Your task to perform on an android device: Go to ESPN.com Image 0: 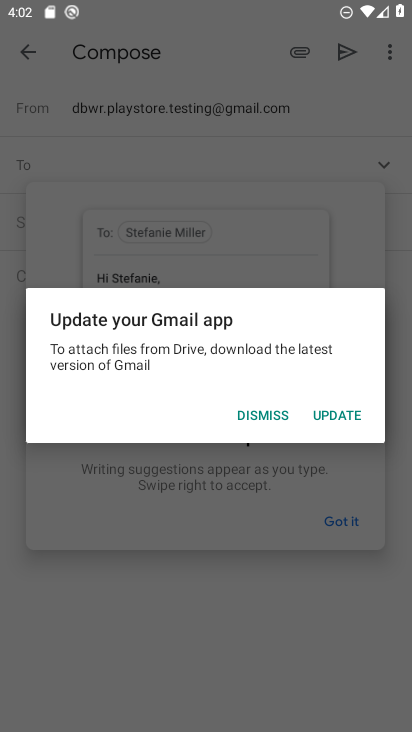
Step 0: press home button
Your task to perform on an android device: Go to ESPN.com Image 1: 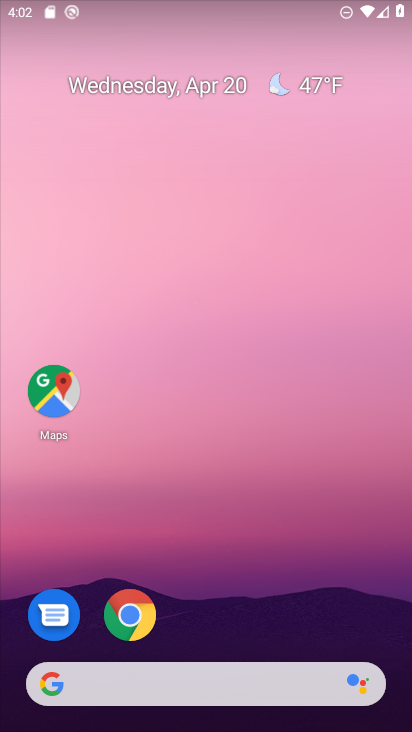
Step 1: click (137, 621)
Your task to perform on an android device: Go to ESPN.com Image 2: 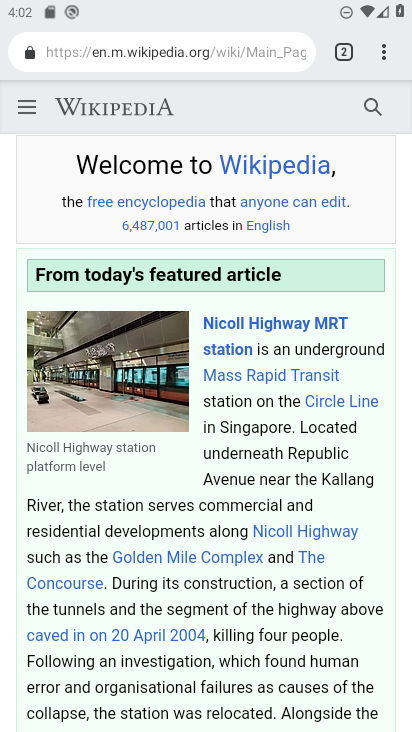
Step 2: click (341, 44)
Your task to perform on an android device: Go to ESPN.com Image 3: 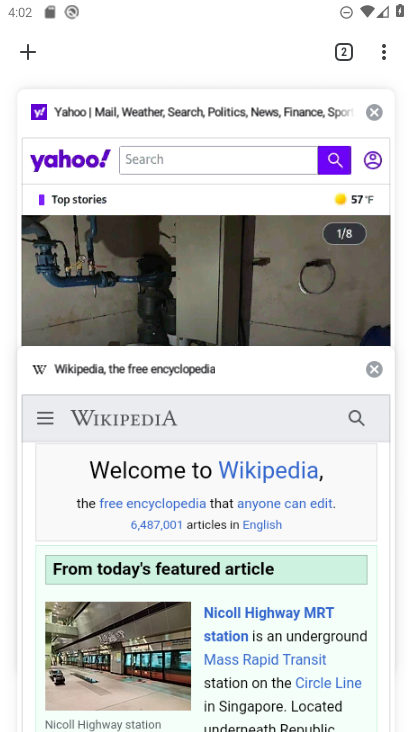
Step 3: click (26, 53)
Your task to perform on an android device: Go to ESPN.com Image 4: 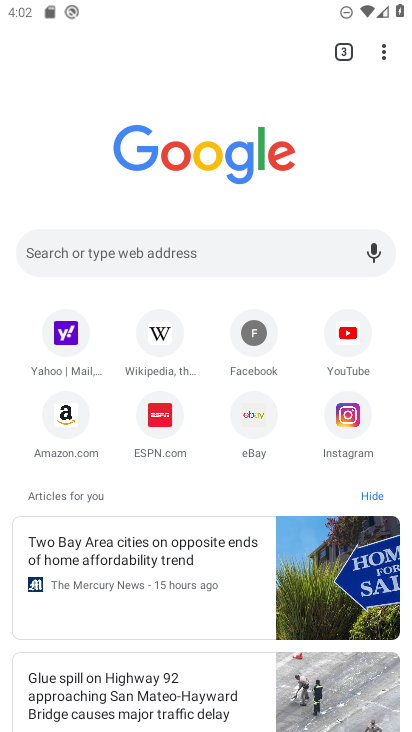
Step 4: click (161, 412)
Your task to perform on an android device: Go to ESPN.com Image 5: 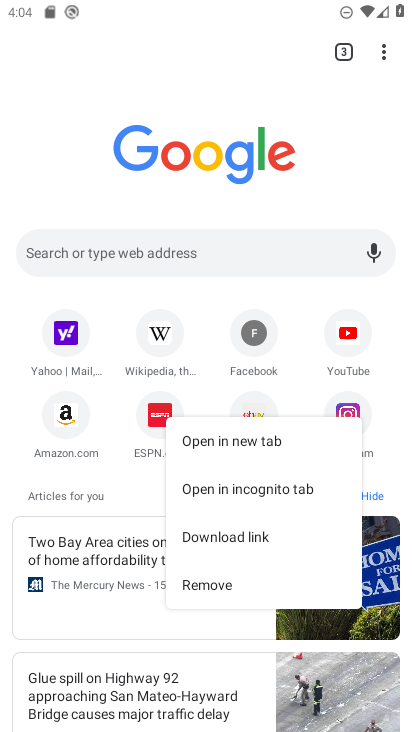
Step 5: task complete